Your task to perform on an android device: toggle wifi Image 0: 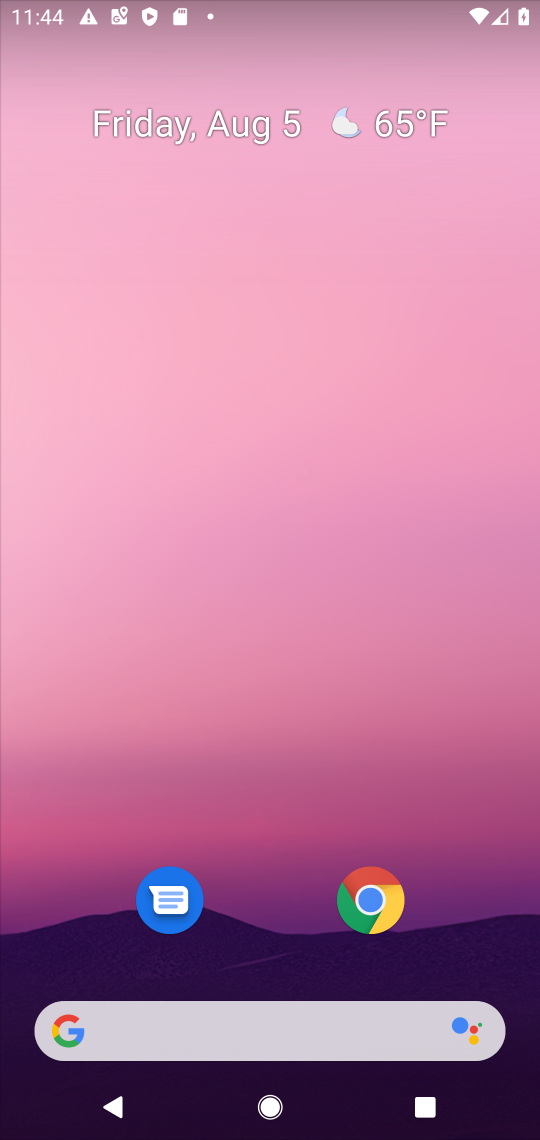
Step 0: drag from (271, 971) to (255, 119)
Your task to perform on an android device: toggle wifi Image 1: 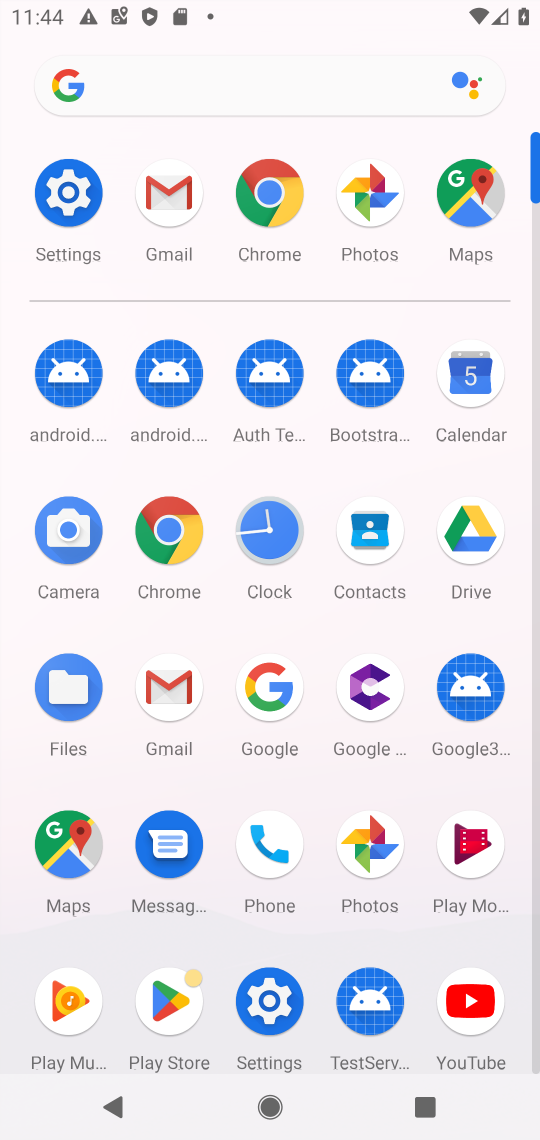
Step 1: click (61, 194)
Your task to perform on an android device: toggle wifi Image 2: 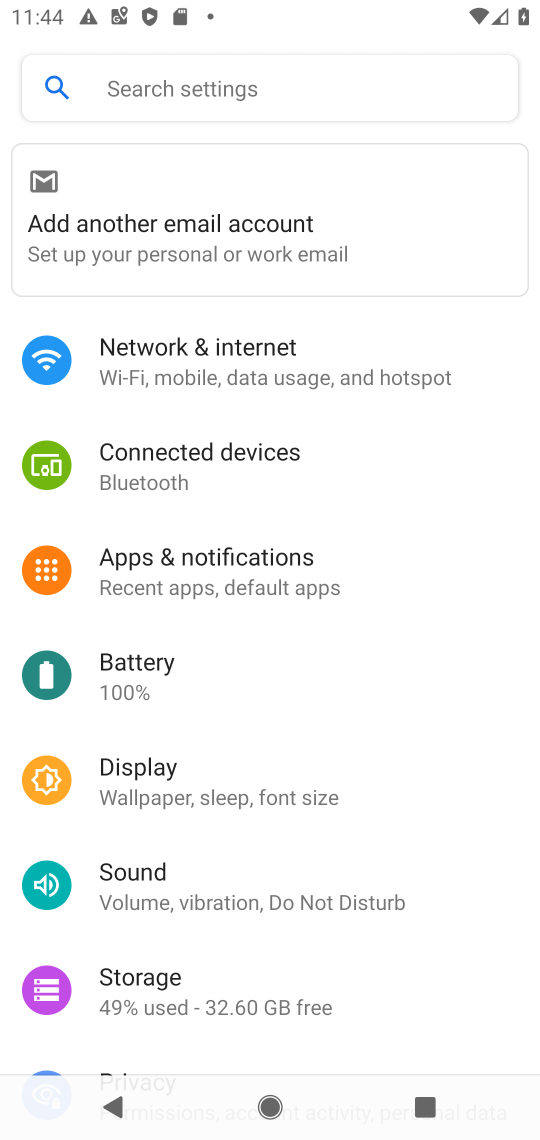
Step 2: click (176, 364)
Your task to perform on an android device: toggle wifi Image 3: 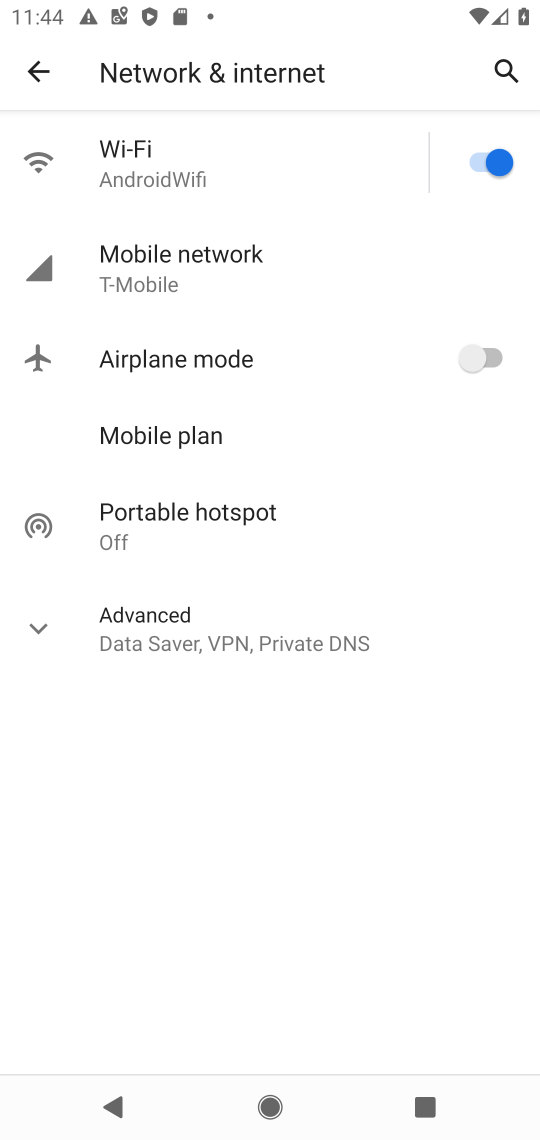
Step 3: click (497, 153)
Your task to perform on an android device: toggle wifi Image 4: 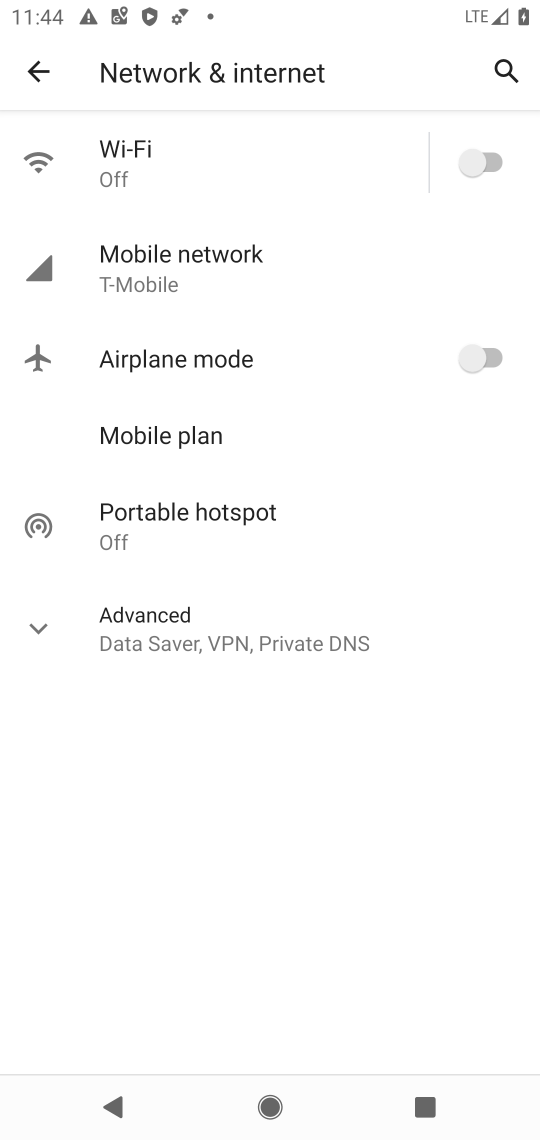
Step 4: task complete